Your task to perform on an android device: Go to network settings Image 0: 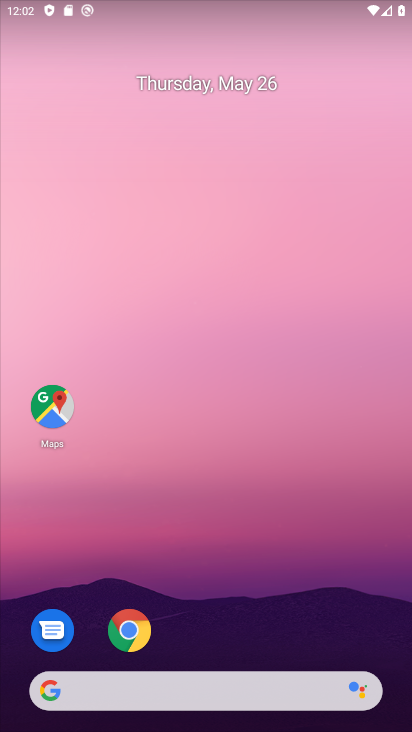
Step 0: drag from (267, 597) to (296, 133)
Your task to perform on an android device: Go to network settings Image 1: 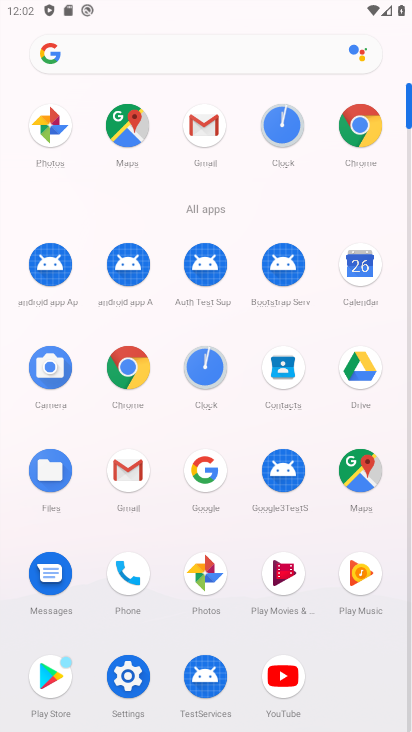
Step 1: drag from (357, 650) to (383, 272)
Your task to perform on an android device: Go to network settings Image 2: 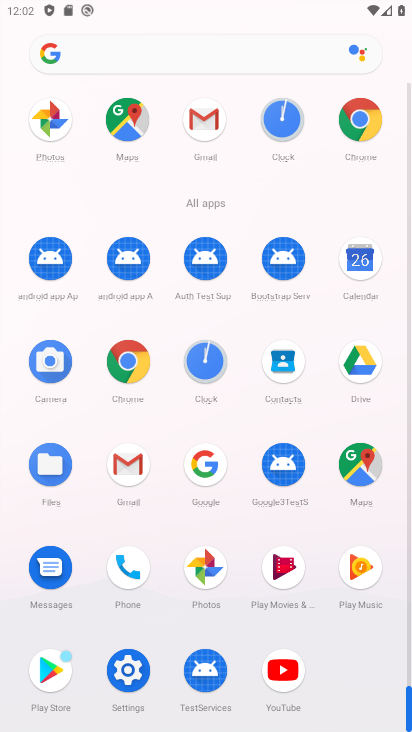
Step 2: click (130, 671)
Your task to perform on an android device: Go to network settings Image 3: 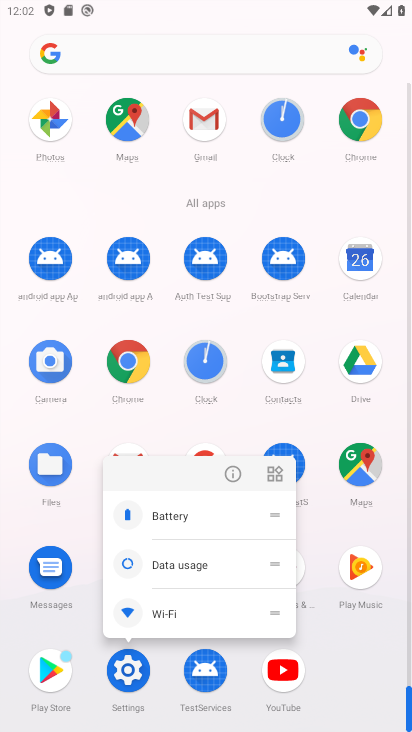
Step 3: click (130, 671)
Your task to perform on an android device: Go to network settings Image 4: 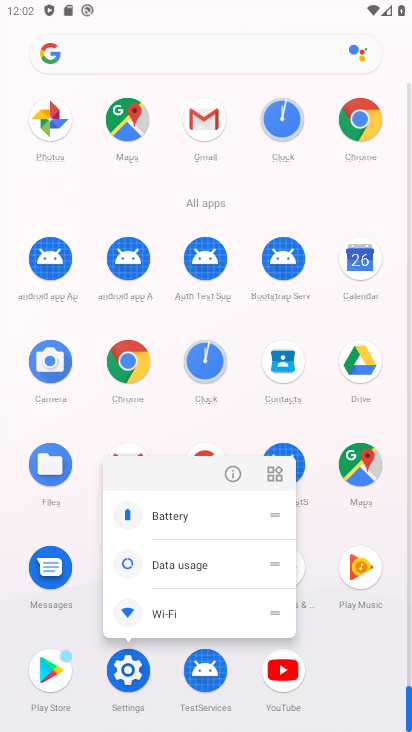
Step 4: click (130, 670)
Your task to perform on an android device: Go to network settings Image 5: 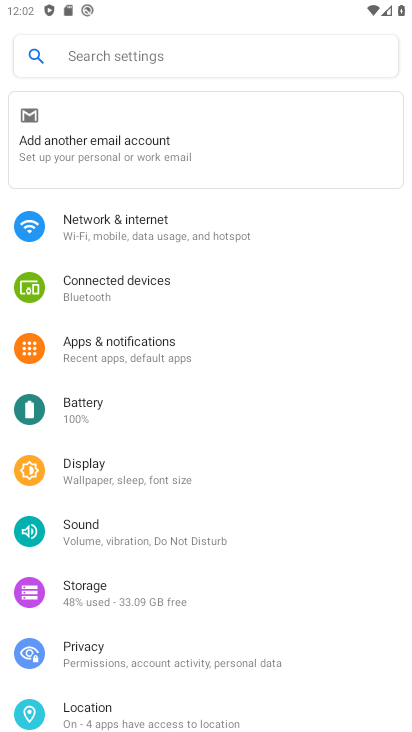
Step 5: click (152, 248)
Your task to perform on an android device: Go to network settings Image 6: 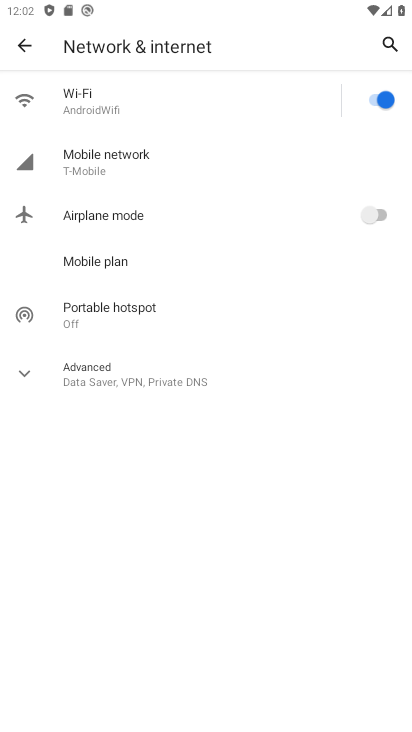
Step 6: task complete